Your task to perform on an android device: turn on javascript in the chrome app Image 0: 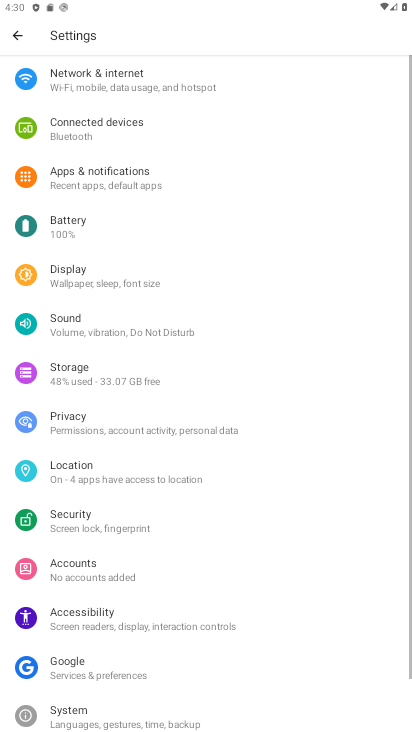
Step 0: press home button
Your task to perform on an android device: turn on javascript in the chrome app Image 1: 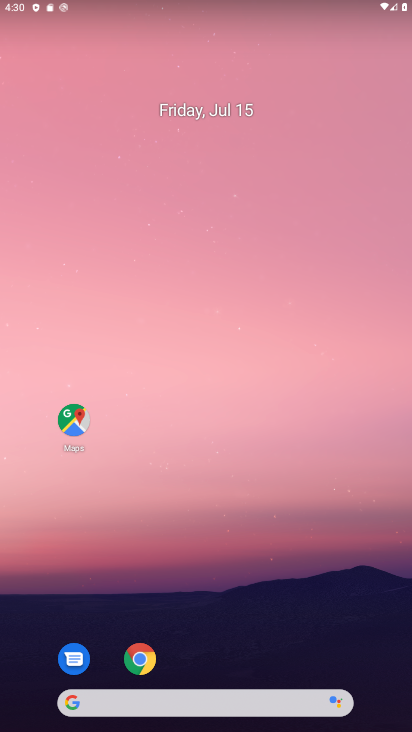
Step 1: click (133, 652)
Your task to perform on an android device: turn on javascript in the chrome app Image 2: 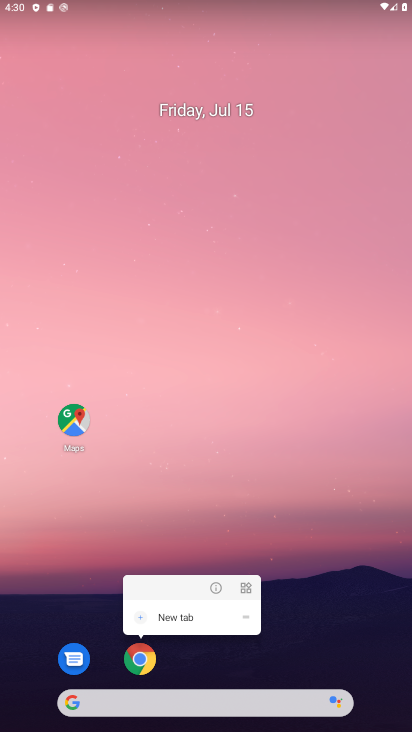
Step 2: click (132, 661)
Your task to perform on an android device: turn on javascript in the chrome app Image 3: 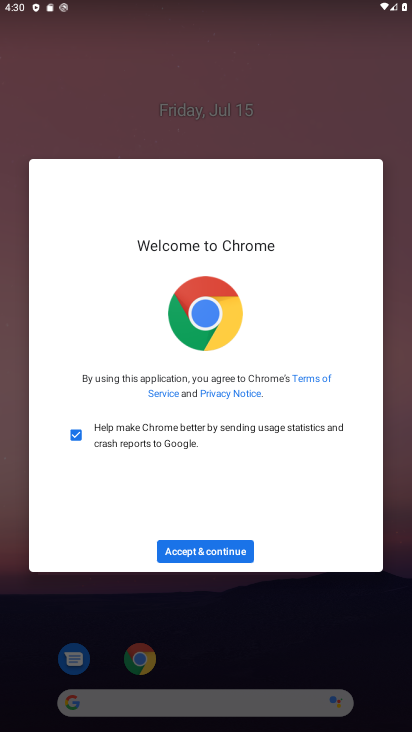
Step 3: click (200, 558)
Your task to perform on an android device: turn on javascript in the chrome app Image 4: 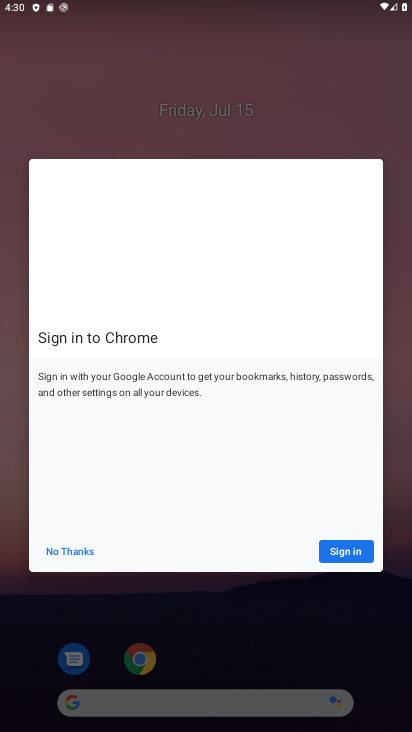
Step 4: click (336, 559)
Your task to perform on an android device: turn on javascript in the chrome app Image 5: 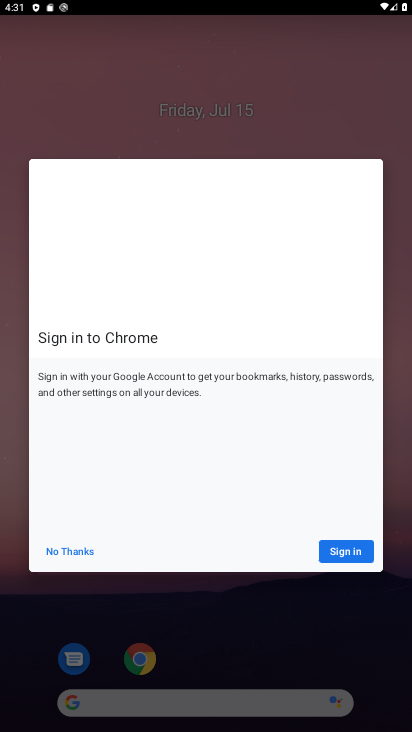
Step 5: click (336, 559)
Your task to perform on an android device: turn on javascript in the chrome app Image 6: 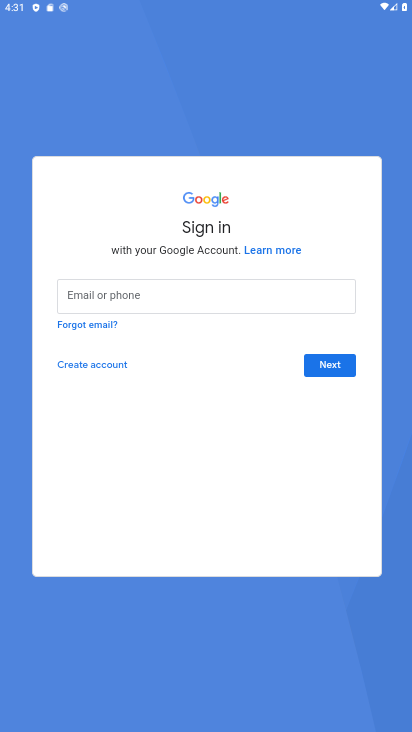
Step 6: task complete